Your task to perform on an android device: Open Google Chrome and click the shortcut for Amazon.com Image 0: 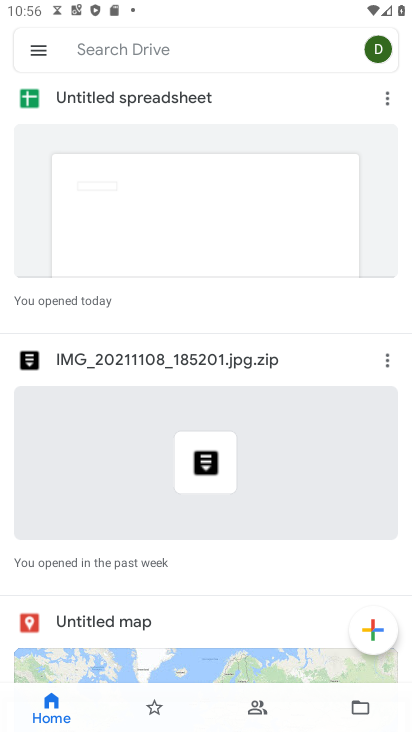
Step 0: press home button
Your task to perform on an android device: Open Google Chrome and click the shortcut for Amazon.com Image 1: 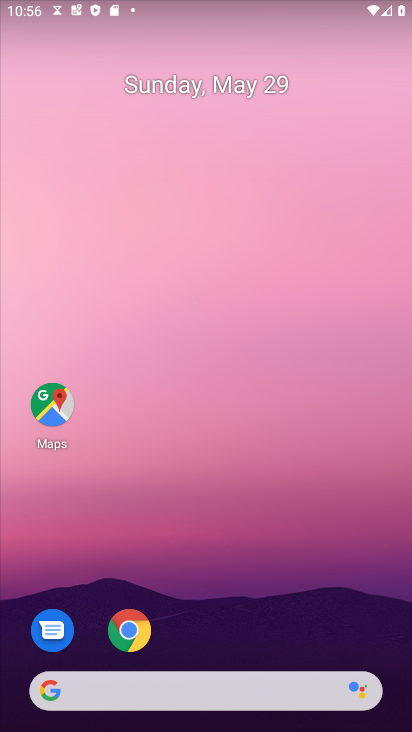
Step 1: click (119, 621)
Your task to perform on an android device: Open Google Chrome and click the shortcut for Amazon.com Image 2: 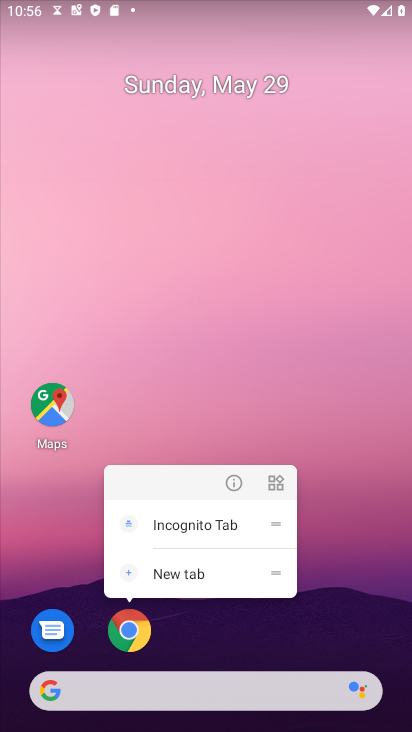
Step 2: click (128, 631)
Your task to perform on an android device: Open Google Chrome and click the shortcut for Amazon.com Image 3: 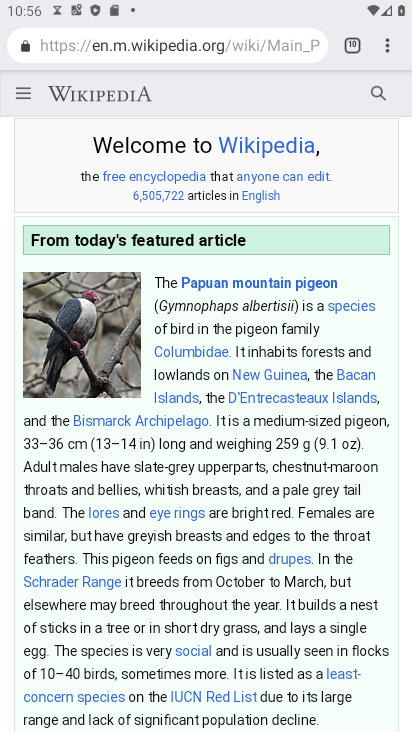
Step 3: click (352, 43)
Your task to perform on an android device: Open Google Chrome and click the shortcut for Amazon.com Image 4: 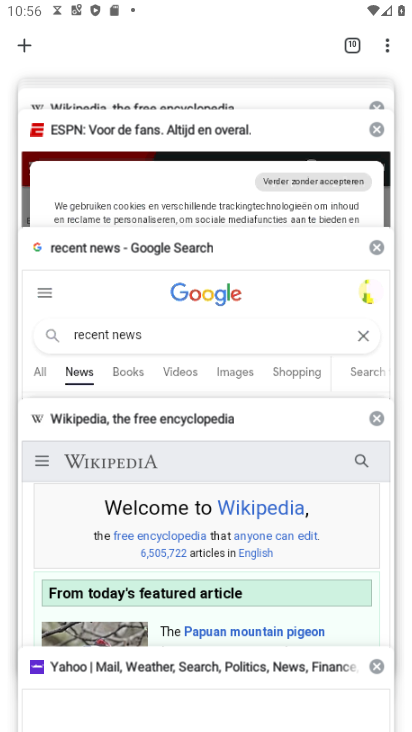
Step 4: drag from (219, 167) to (214, 650)
Your task to perform on an android device: Open Google Chrome and click the shortcut for Amazon.com Image 5: 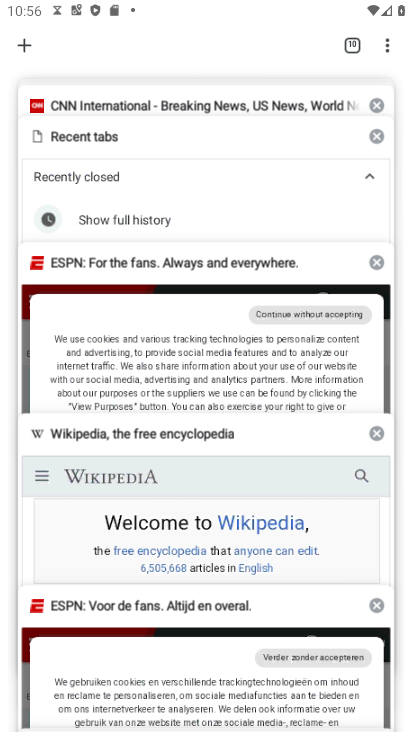
Step 5: drag from (172, 214) to (197, 628)
Your task to perform on an android device: Open Google Chrome and click the shortcut for Amazon.com Image 6: 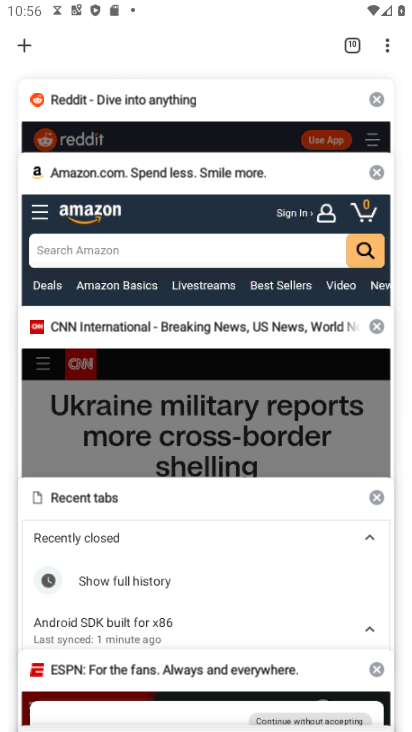
Step 6: click (216, 253)
Your task to perform on an android device: Open Google Chrome and click the shortcut for Amazon.com Image 7: 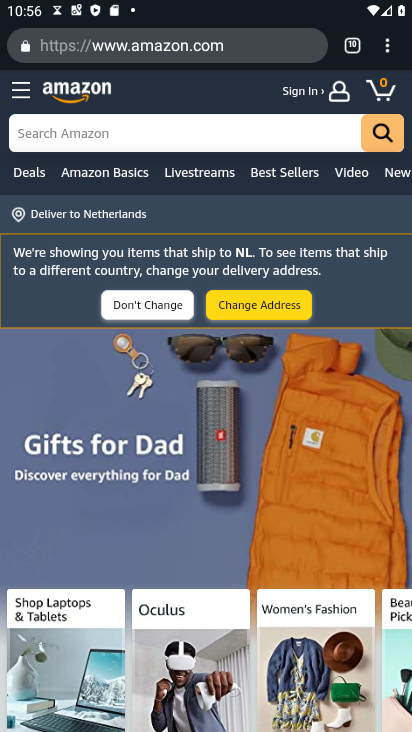
Step 7: task complete